Your task to perform on an android device: What's on my calendar today? Image 0: 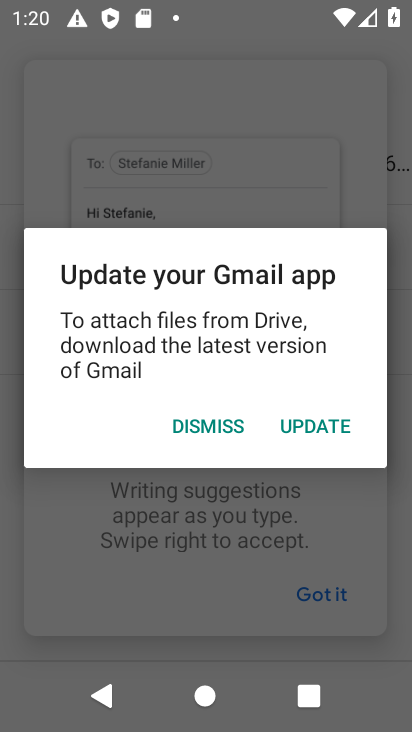
Step 0: press home button
Your task to perform on an android device: What's on my calendar today? Image 1: 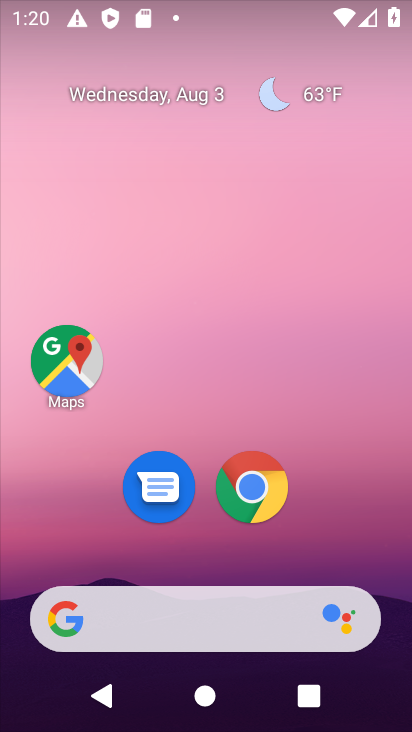
Step 1: drag from (321, 563) to (316, 99)
Your task to perform on an android device: What's on my calendar today? Image 2: 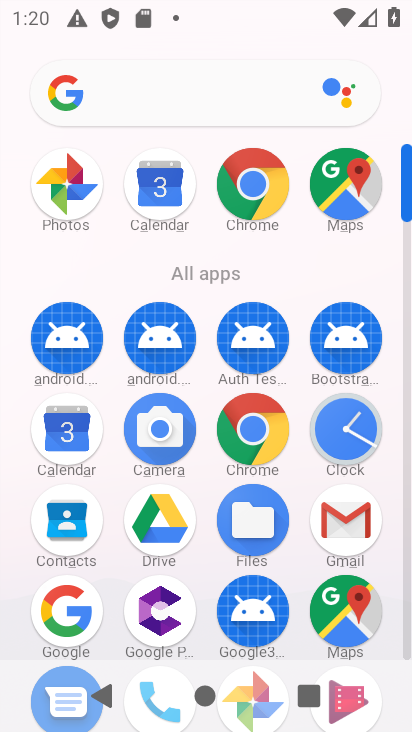
Step 2: click (164, 184)
Your task to perform on an android device: What's on my calendar today? Image 3: 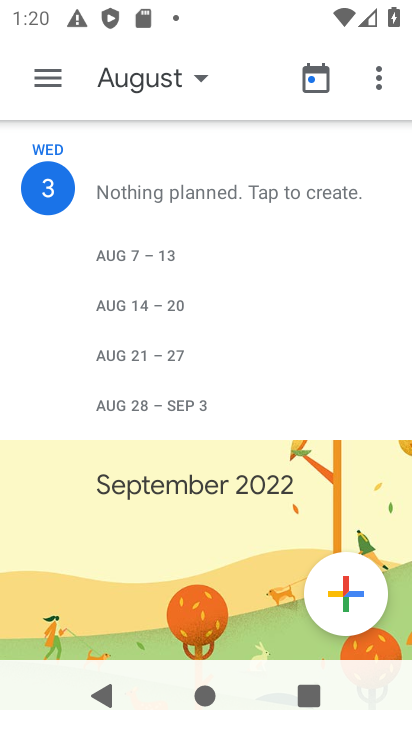
Step 3: click (186, 74)
Your task to perform on an android device: What's on my calendar today? Image 4: 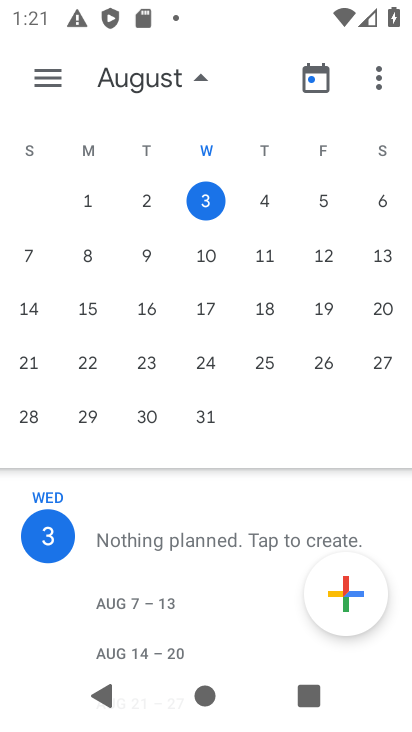
Step 4: click (208, 200)
Your task to perform on an android device: What's on my calendar today? Image 5: 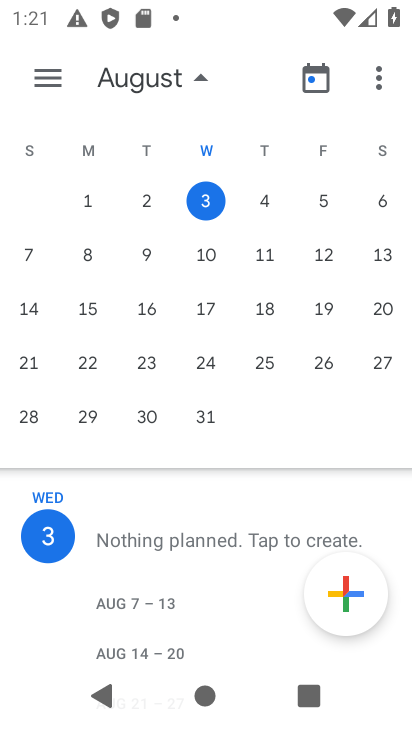
Step 5: task complete